Your task to perform on an android device: Open settings Image 0: 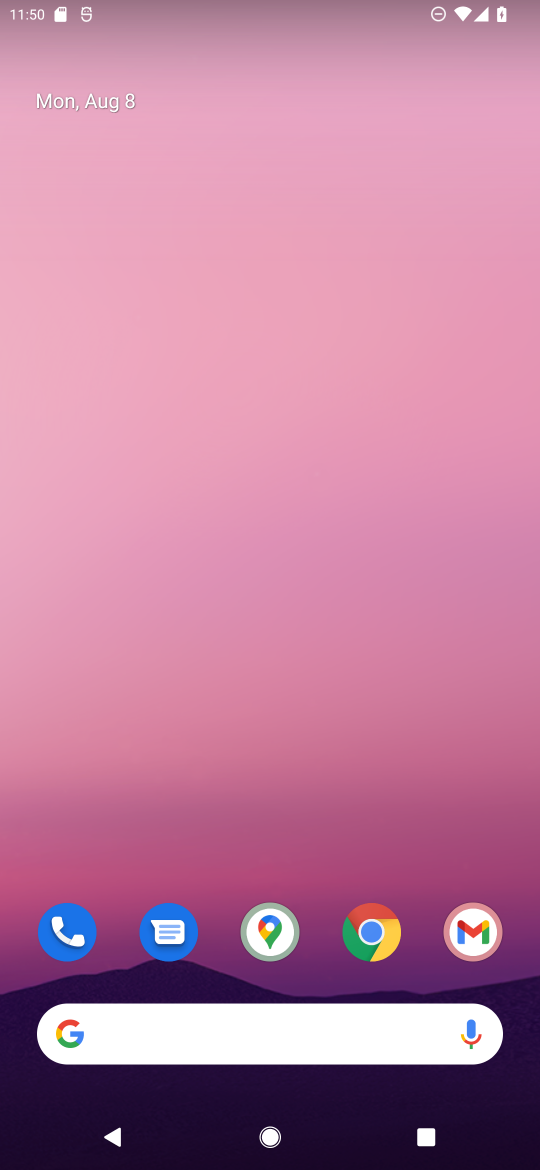
Step 0: drag from (362, 667) to (159, 34)
Your task to perform on an android device: Open settings Image 1: 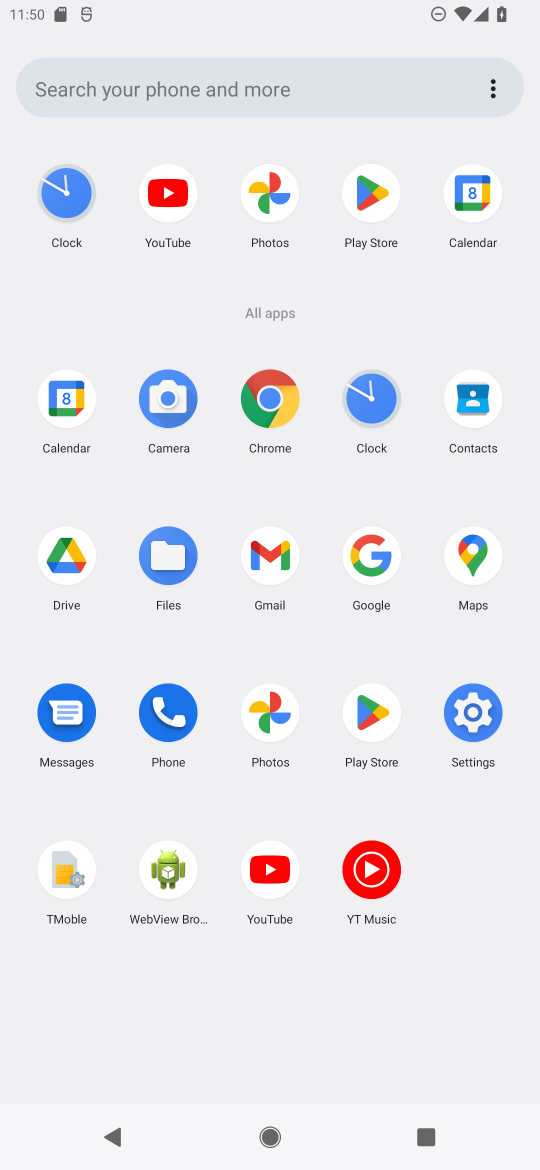
Step 1: click (493, 707)
Your task to perform on an android device: Open settings Image 2: 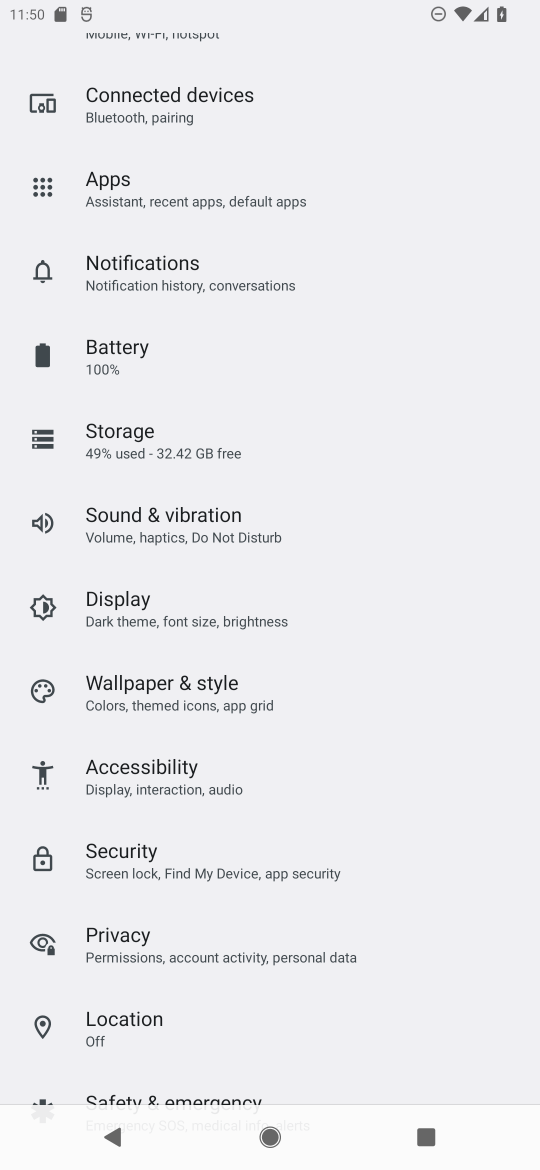
Step 2: task complete